Your task to perform on an android device: Go to privacy settings Image 0: 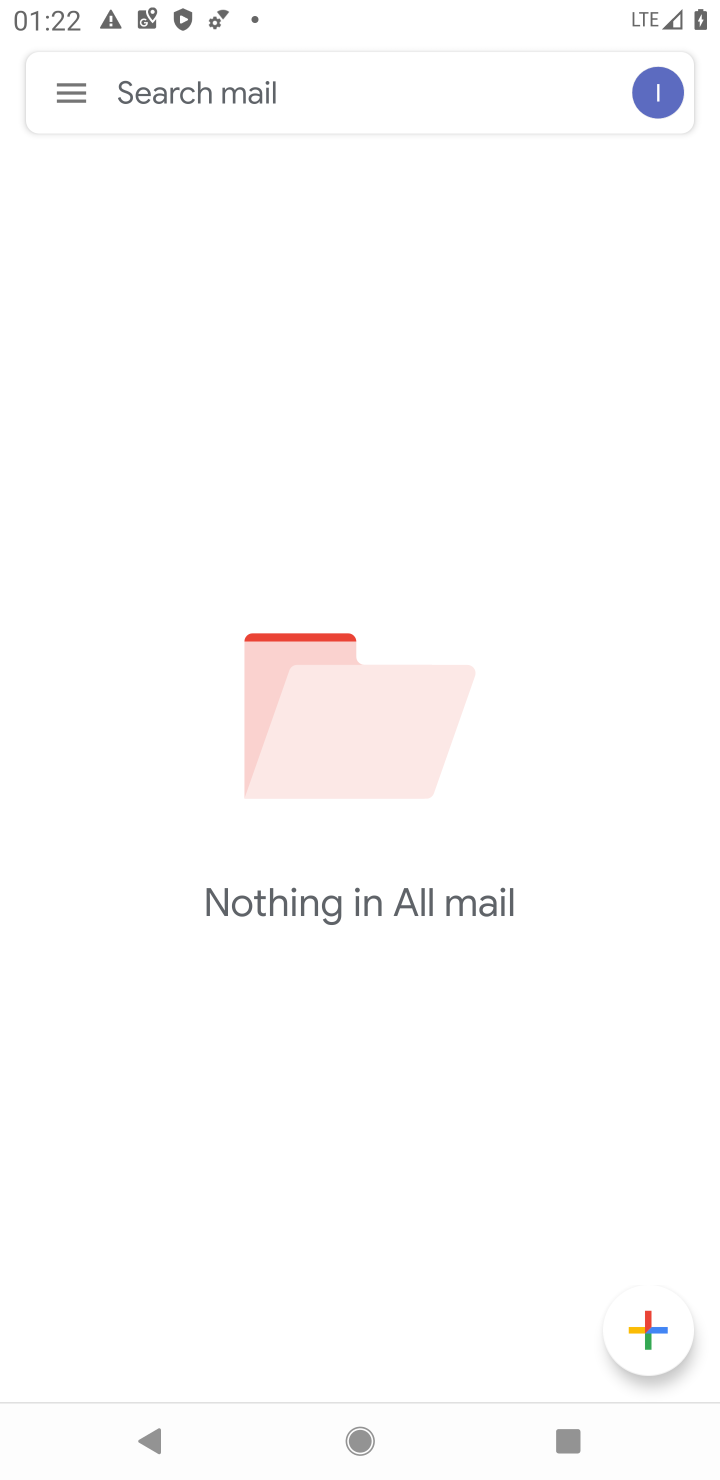
Step 0: click (157, 1439)
Your task to perform on an android device: Go to privacy settings Image 1: 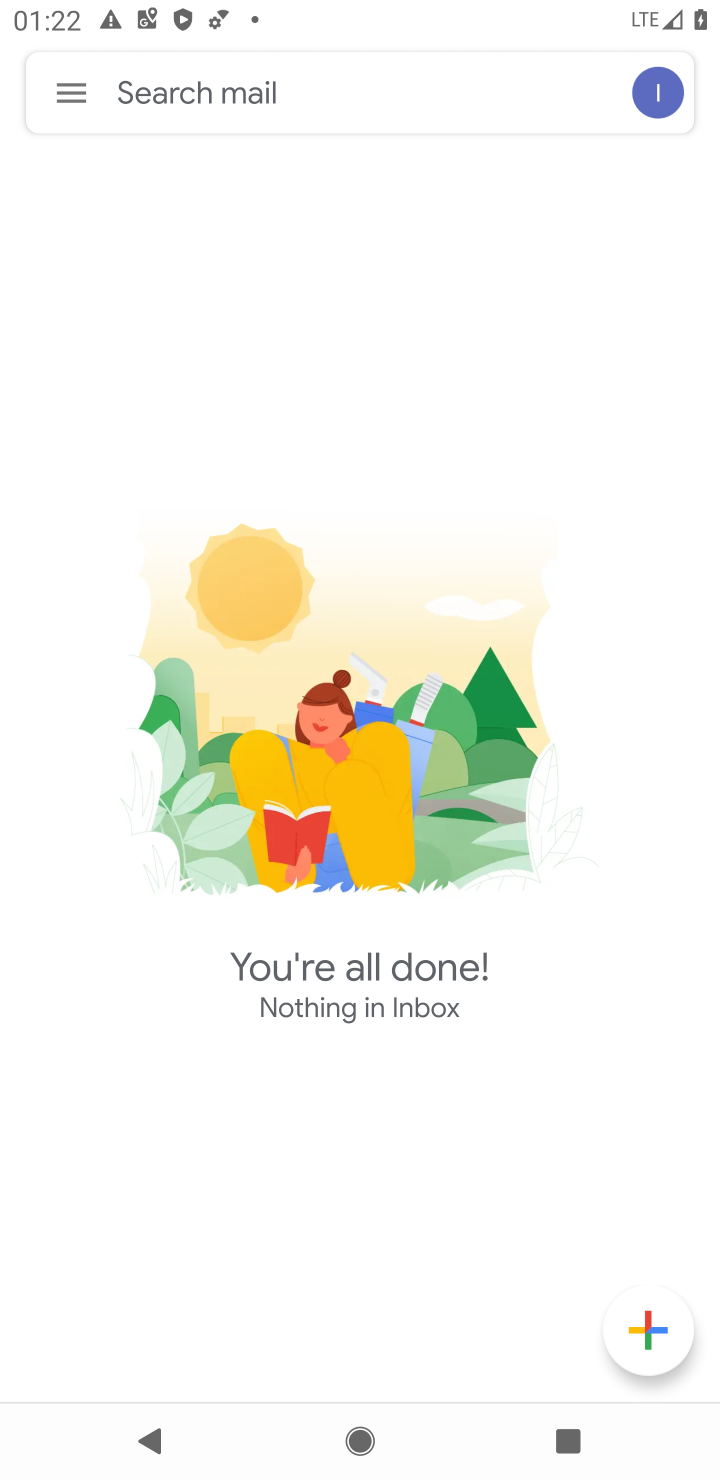
Step 1: click (157, 1439)
Your task to perform on an android device: Go to privacy settings Image 2: 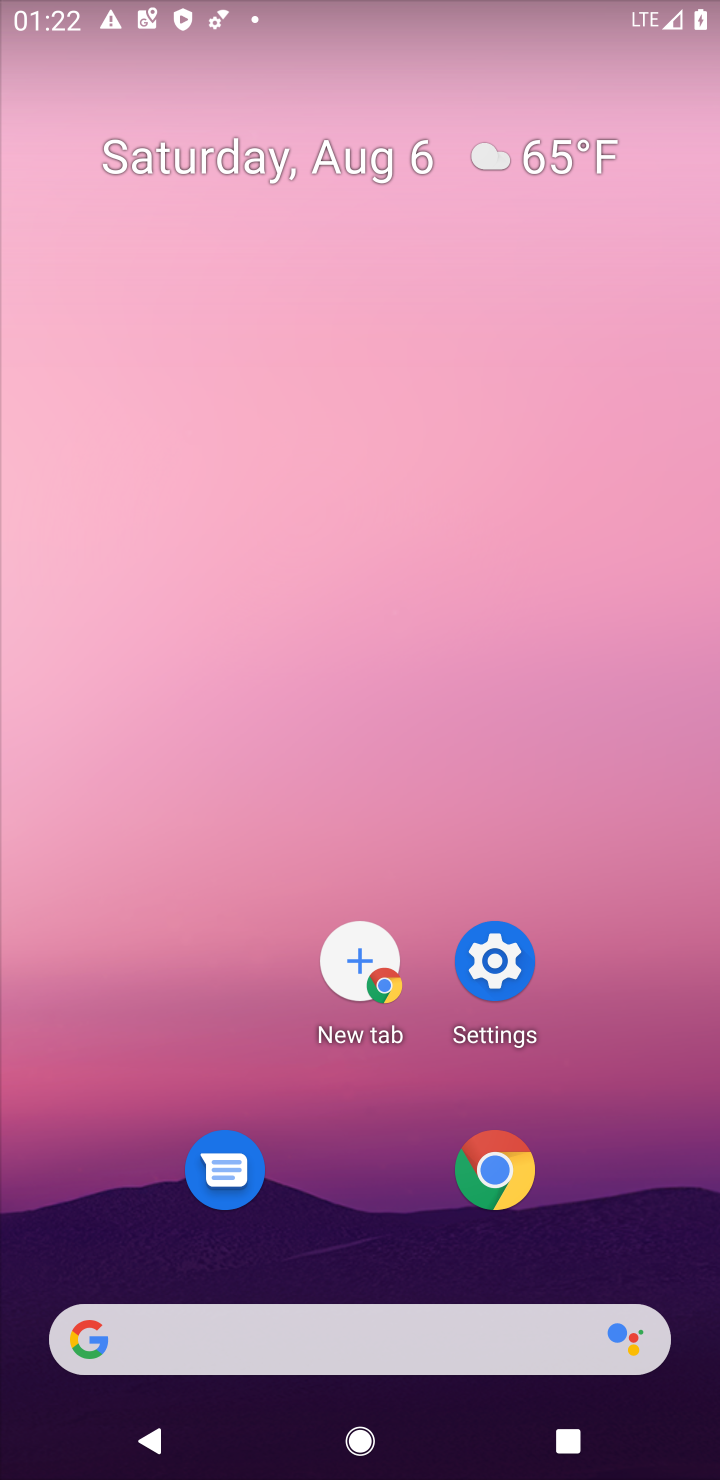
Step 2: click (478, 959)
Your task to perform on an android device: Go to privacy settings Image 3: 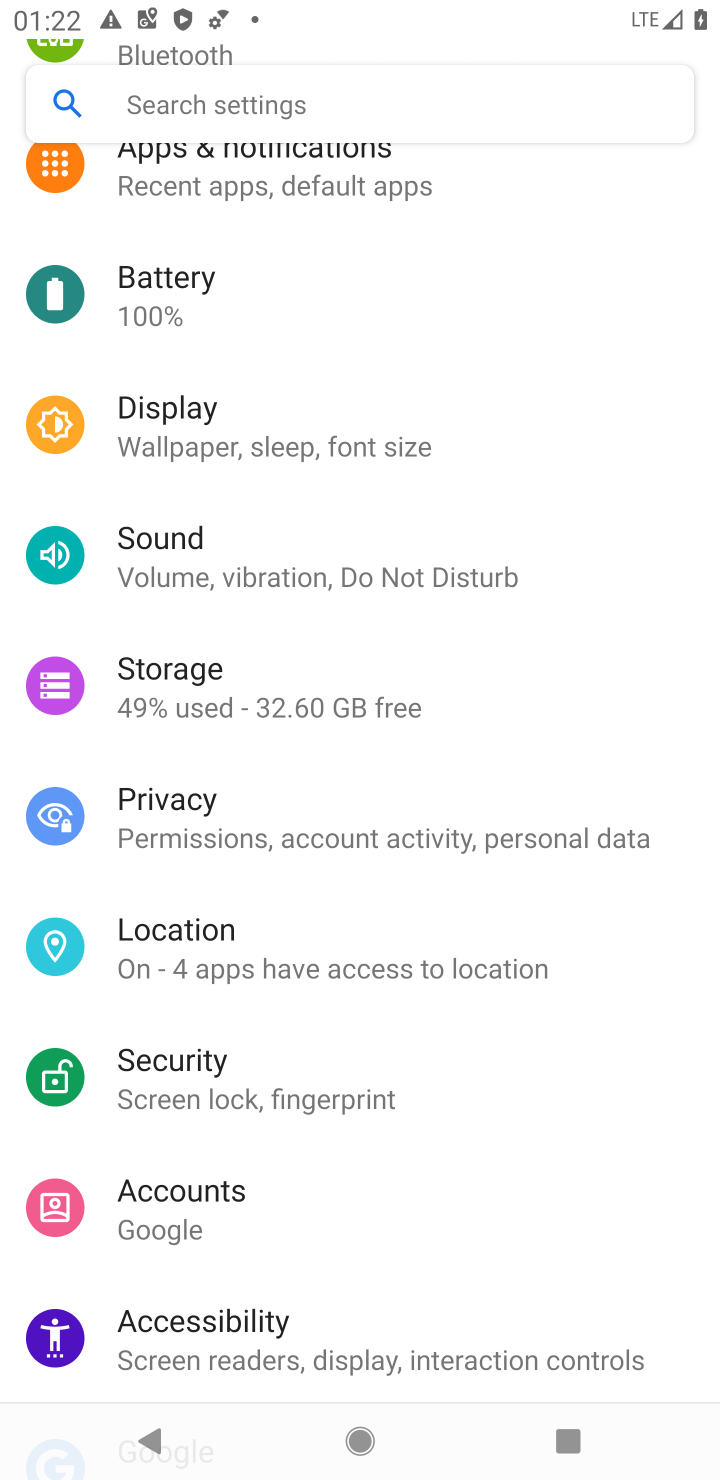
Step 3: click (296, 824)
Your task to perform on an android device: Go to privacy settings Image 4: 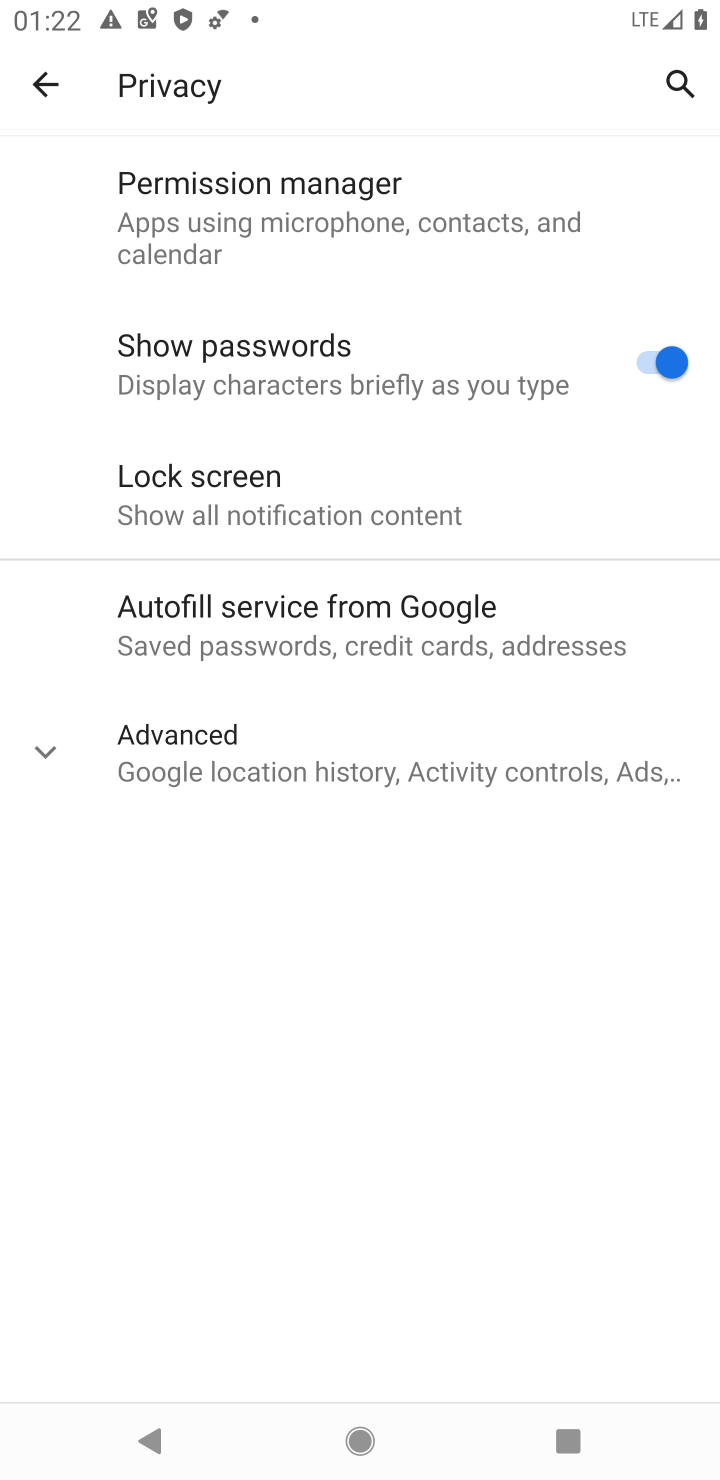
Step 4: task complete